Your task to perform on an android device: Open location settings Image 0: 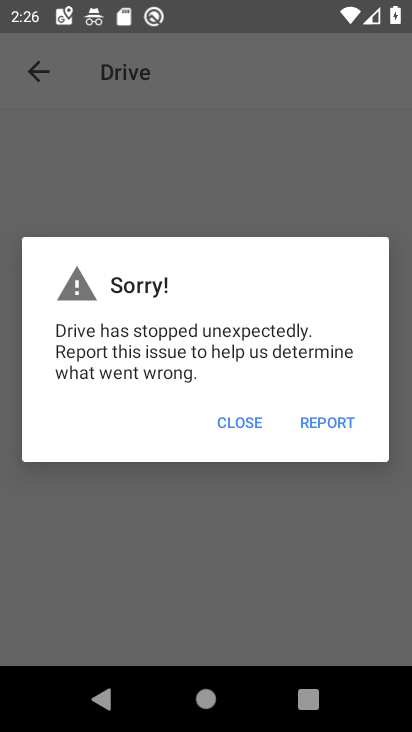
Step 0: press home button
Your task to perform on an android device: Open location settings Image 1: 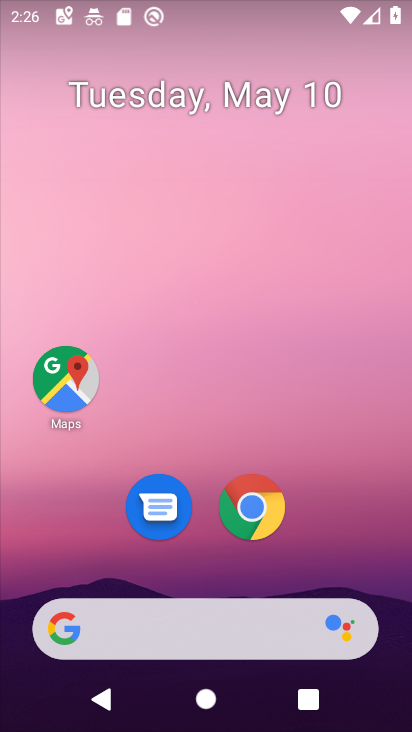
Step 1: drag from (176, 585) to (235, 175)
Your task to perform on an android device: Open location settings Image 2: 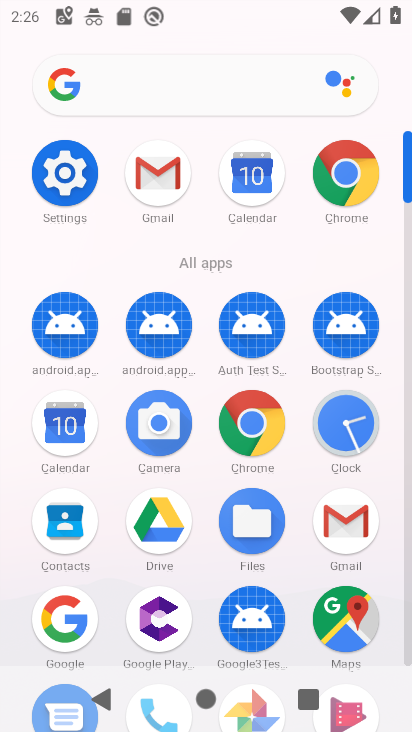
Step 2: click (68, 169)
Your task to perform on an android device: Open location settings Image 3: 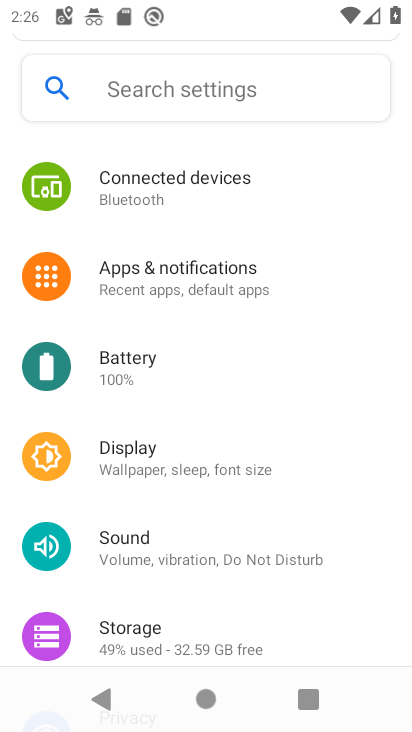
Step 3: drag from (173, 507) to (225, 202)
Your task to perform on an android device: Open location settings Image 4: 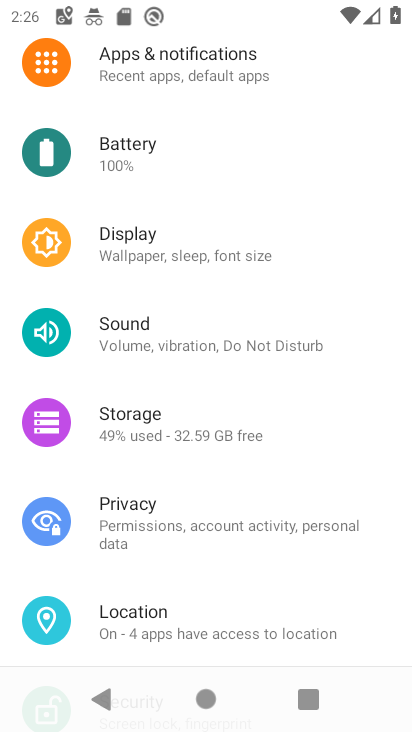
Step 4: click (161, 613)
Your task to perform on an android device: Open location settings Image 5: 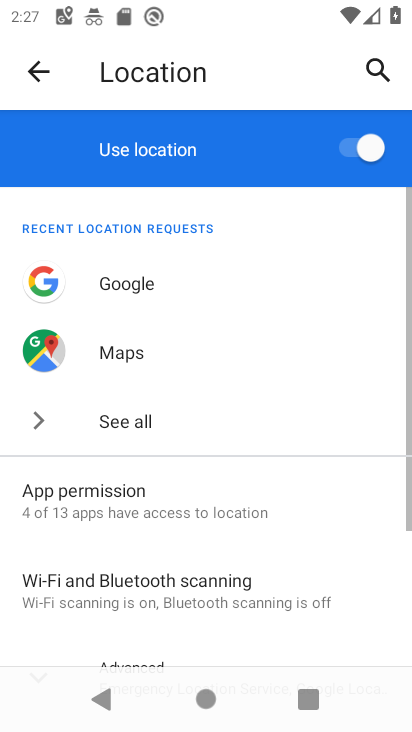
Step 5: task complete